Your task to perform on an android device: Open calendar and show me the third week of next month Image 0: 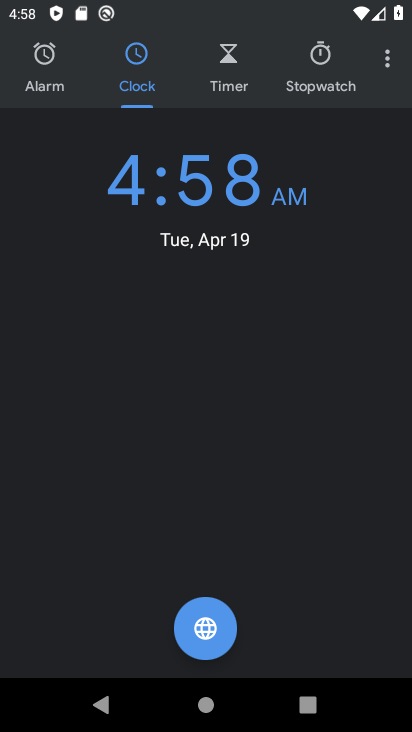
Step 0: press home button
Your task to perform on an android device: Open calendar and show me the third week of next month Image 1: 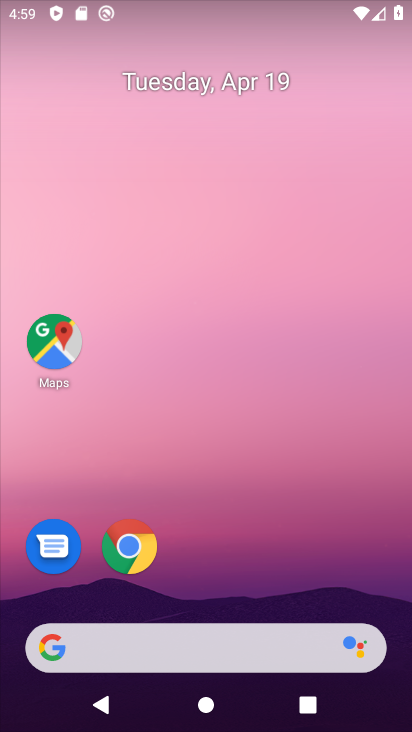
Step 1: drag from (261, 522) to (228, 18)
Your task to perform on an android device: Open calendar and show me the third week of next month Image 2: 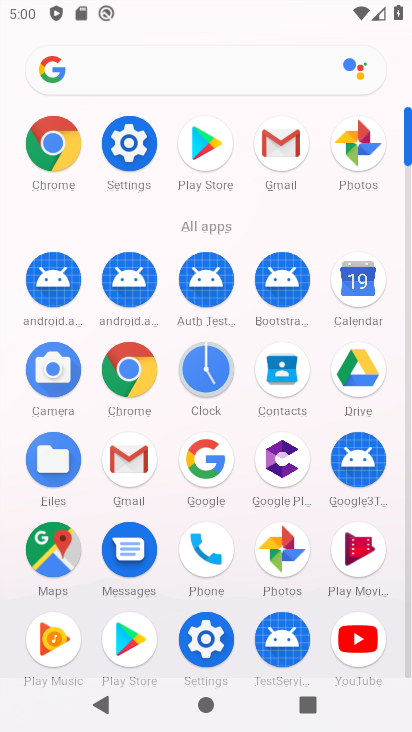
Step 2: click (366, 287)
Your task to perform on an android device: Open calendar and show me the third week of next month Image 3: 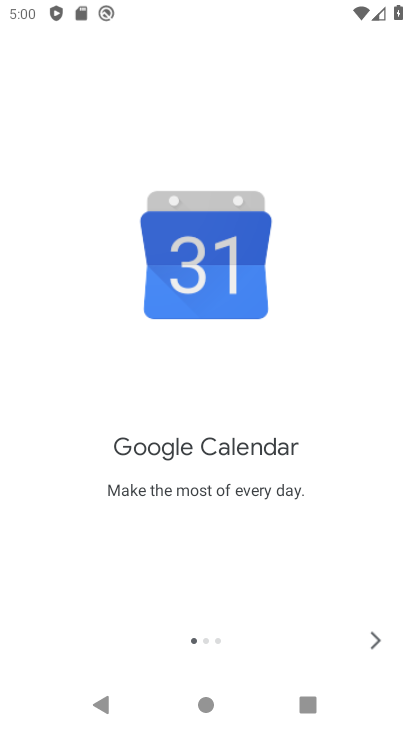
Step 3: click (367, 631)
Your task to perform on an android device: Open calendar and show me the third week of next month Image 4: 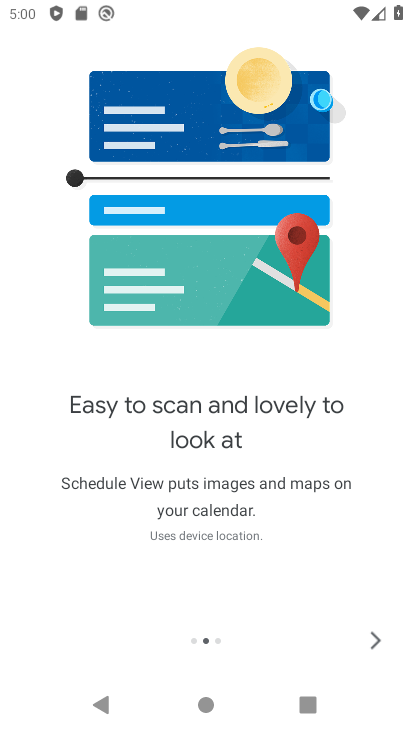
Step 4: click (368, 638)
Your task to perform on an android device: Open calendar and show me the third week of next month Image 5: 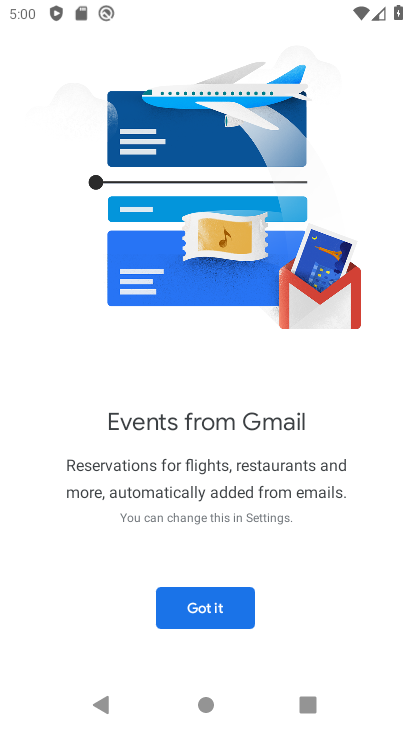
Step 5: click (199, 617)
Your task to perform on an android device: Open calendar and show me the third week of next month Image 6: 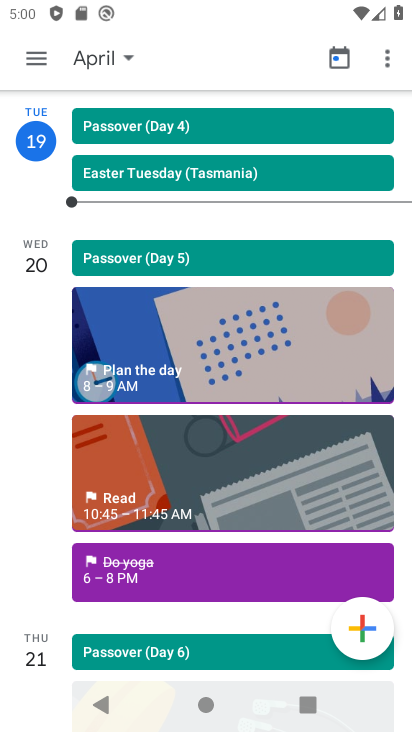
Step 6: click (116, 66)
Your task to perform on an android device: Open calendar and show me the third week of next month Image 7: 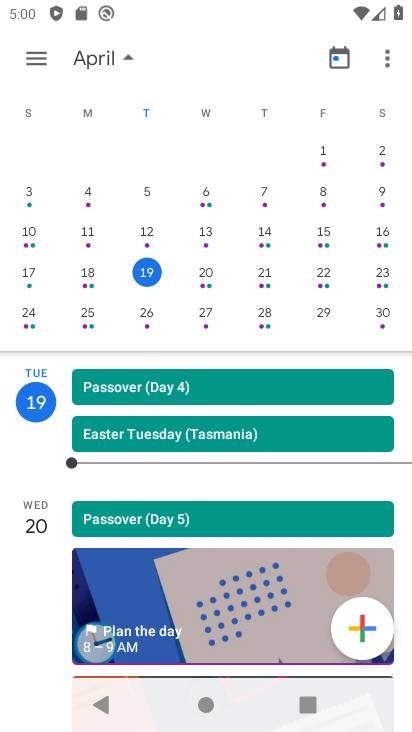
Step 7: drag from (332, 219) to (11, 317)
Your task to perform on an android device: Open calendar and show me the third week of next month Image 8: 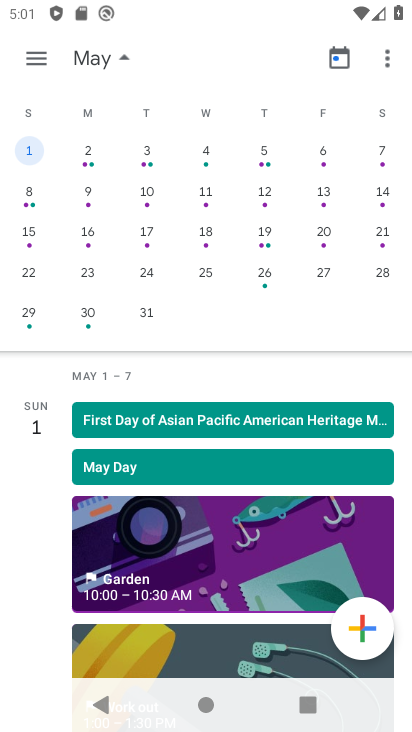
Step 8: click (380, 234)
Your task to perform on an android device: Open calendar and show me the third week of next month Image 9: 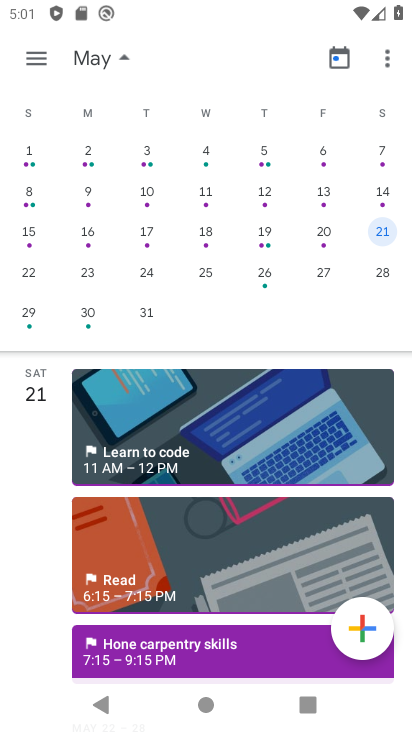
Step 9: task complete